Your task to perform on an android device: toggle sleep mode Image 0: 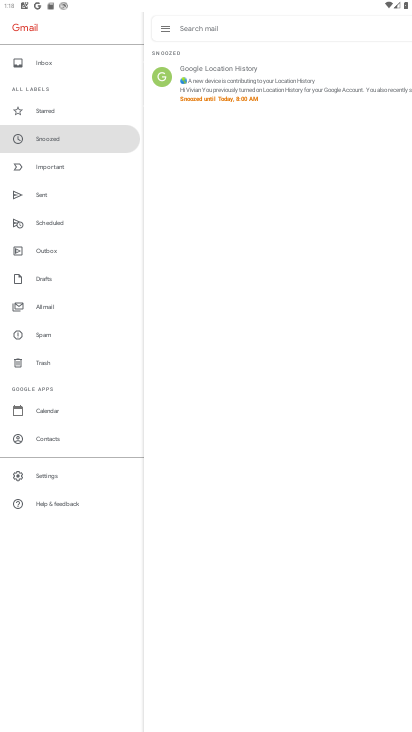
Step 0: press home button
Your task to perform on an android device: toggle sleep mode Image 1: 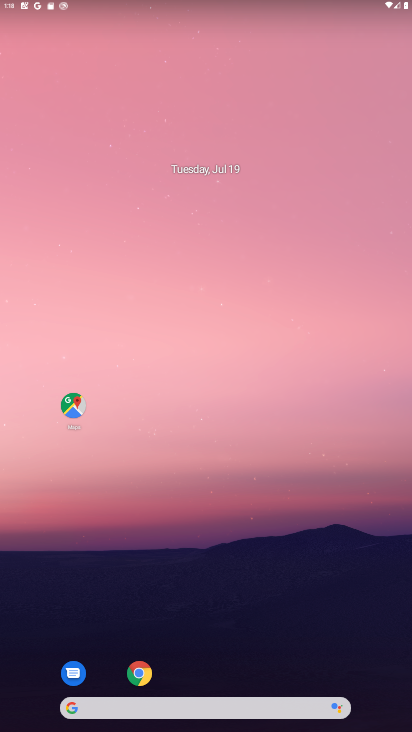
Step 1: drag from (122, 667) to (252, 141)
Your task to perform on an android device: toggle sleep mode Image 2: 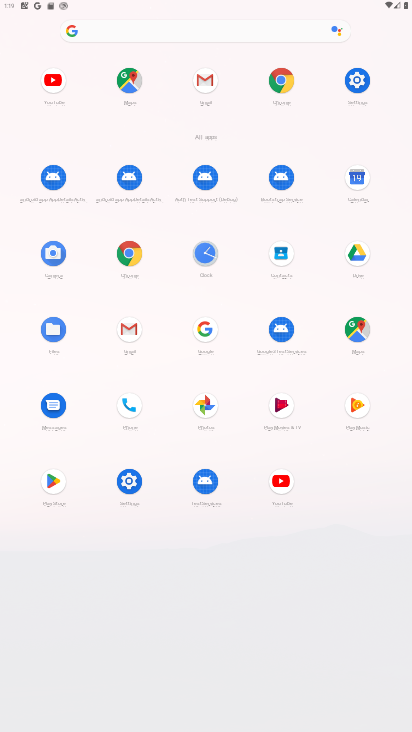
Step 2: click (357, 87)
Your task to perform on an android device: toggle sleep mode Image 3: 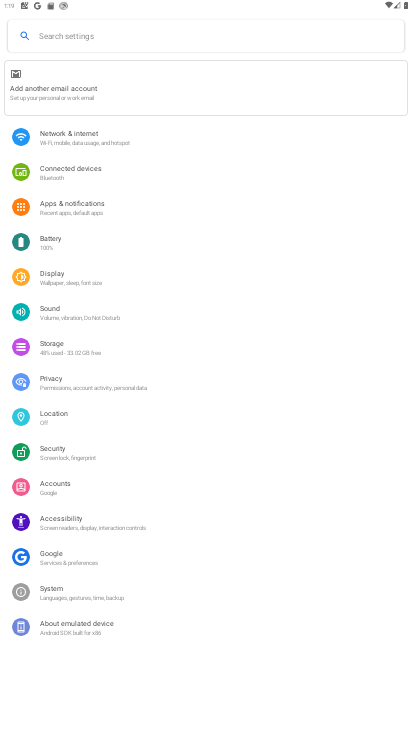
Step 3: click (110, 275)
Your task to perform on an android device: toggle sleep mode Image 4: 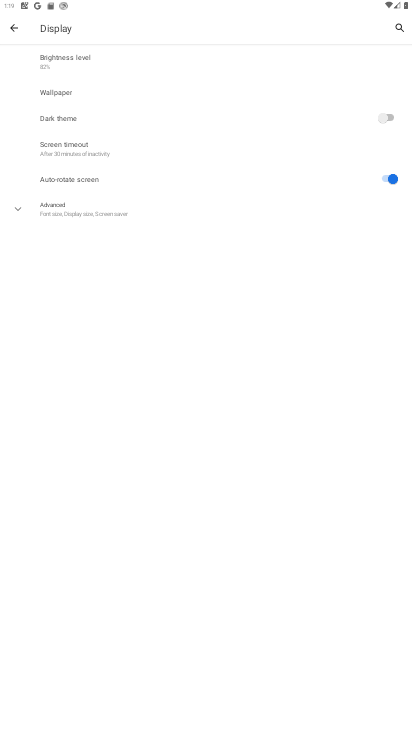
Step 4: task complete